Your task to perform on an android device: toggle javascript in the chrome app Image 0: 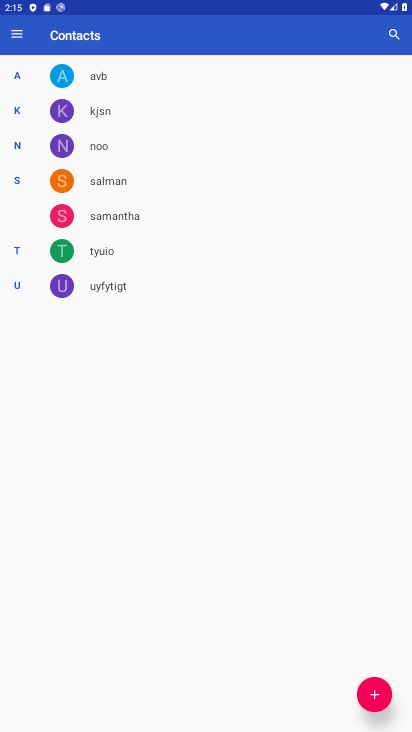
Step 0: press home button
Your task to perform on an android device: toggle javascript in the chrome app Image 1: 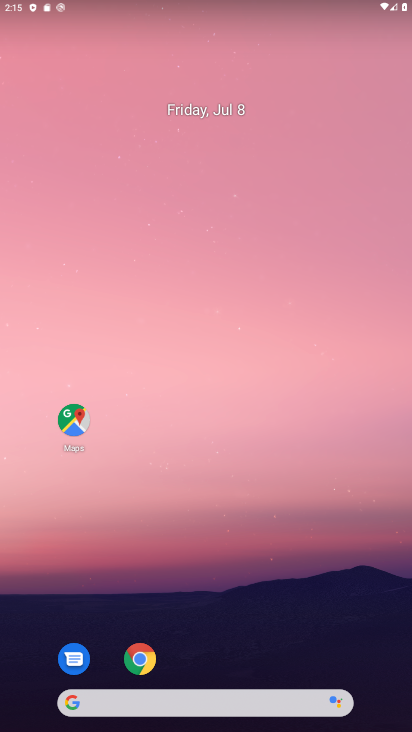
Step 1: click (136, 662)
Your task to perform on an android device: toggle javascript in the chrome app Image 2: 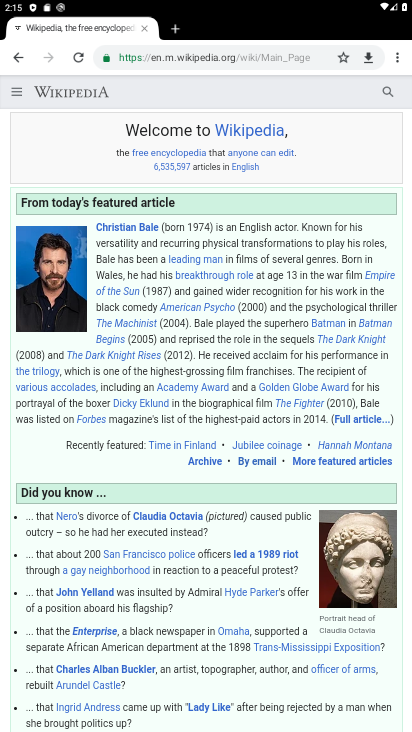
Step 2: click (398, 55)
Your task to perform on an android device: toggle javascript in the chrome app Image 3: 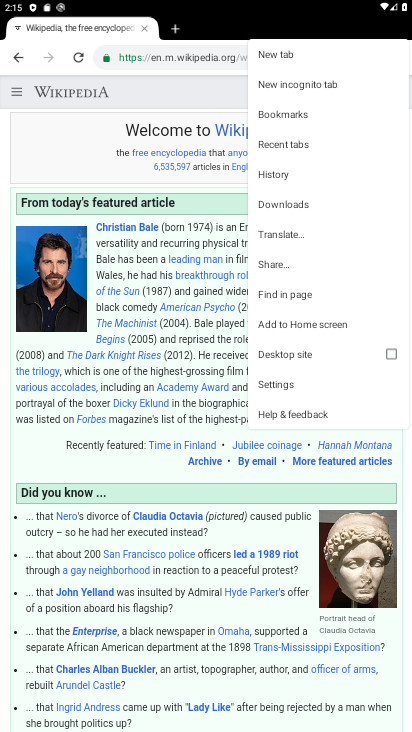
Step 3: click (271, 383)
Your task to perform on an android device: toggle javascript in the chrome app Image 4: 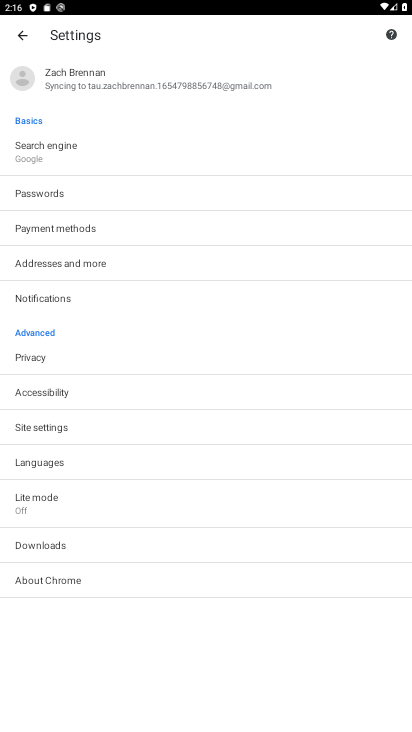
Step 4: click (74, 428)
Your task to perform on an android device: toggle javascript in the chrome app Image 5: 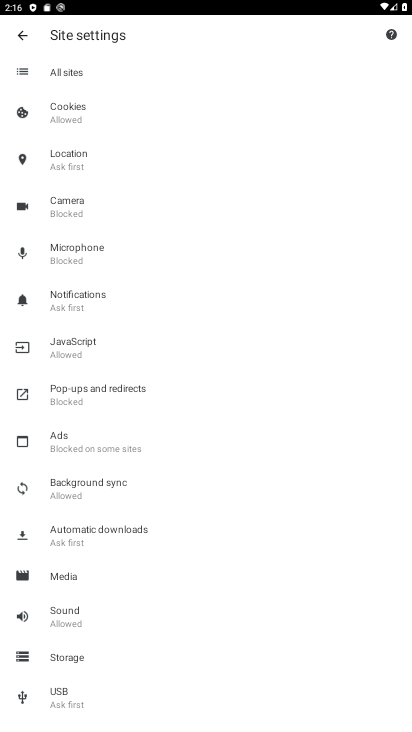
Step 5: click (86, 343)
Your task to perform on an android device: toggle javascript in the chrome app Image 6: 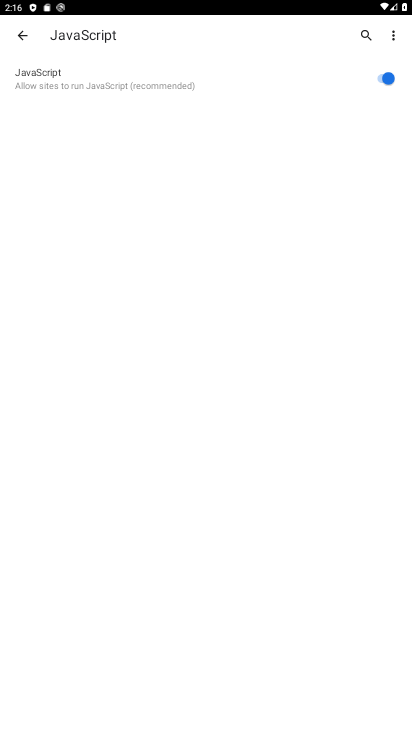
Step 6: click (381, 63)
Your task to perform on an android device: toggle javascript in the chrome app Image 7: 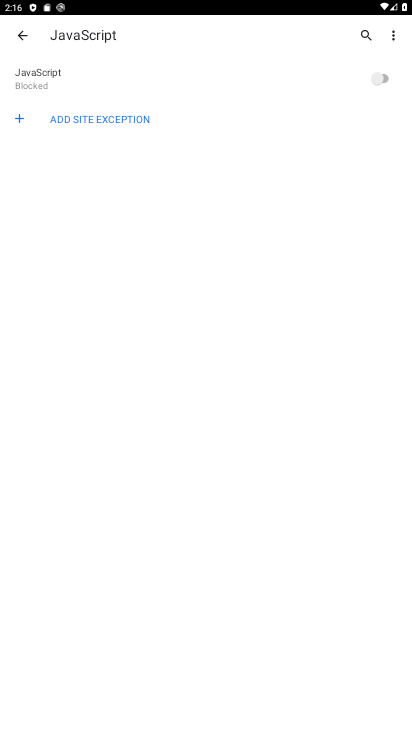
Step 7: task complete